Your task to perform on an android device: check data usage Image 0: 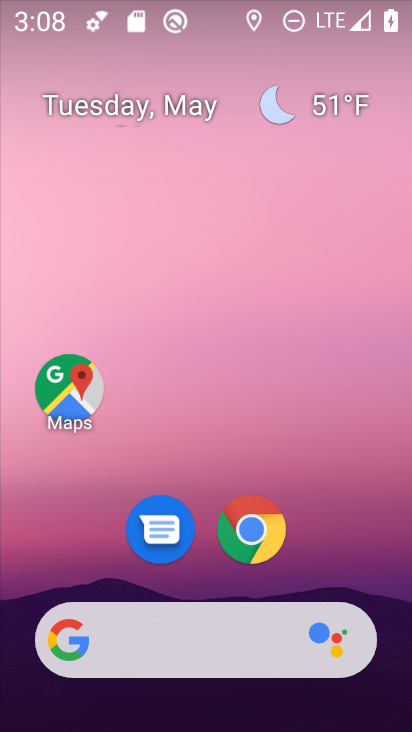
Step 0: drag from (211, 568) to (243, 36)
Your task to perform on an android device: check data usage Image 1: 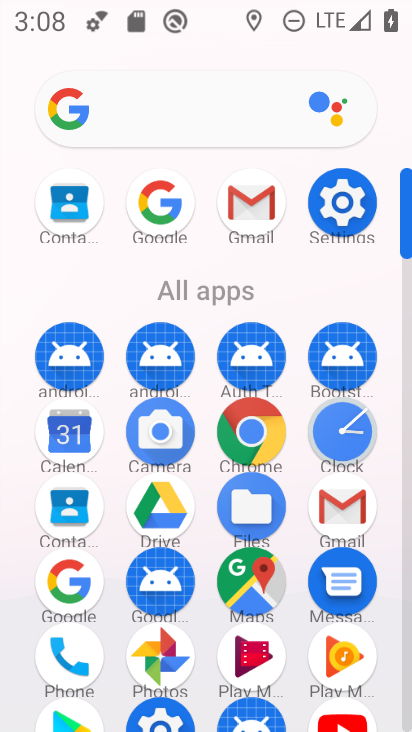
Step 1: click (353, 185)
Your task to perform on an android device: check data usage Image 2: 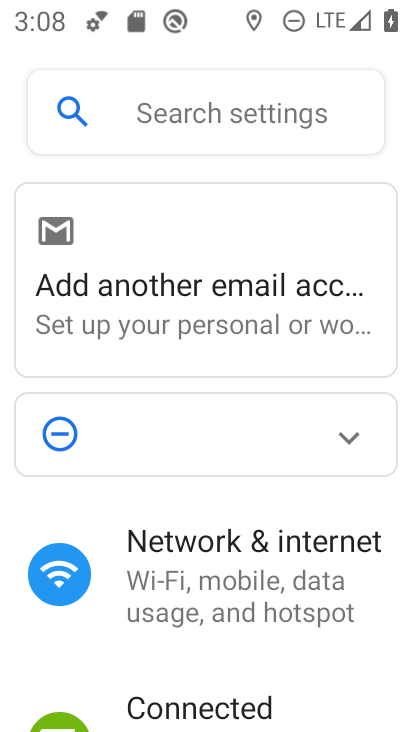
Step 2: drag from (215, 599) to (252, 198)
Your task to perform on an android device: check data usage Image 3: 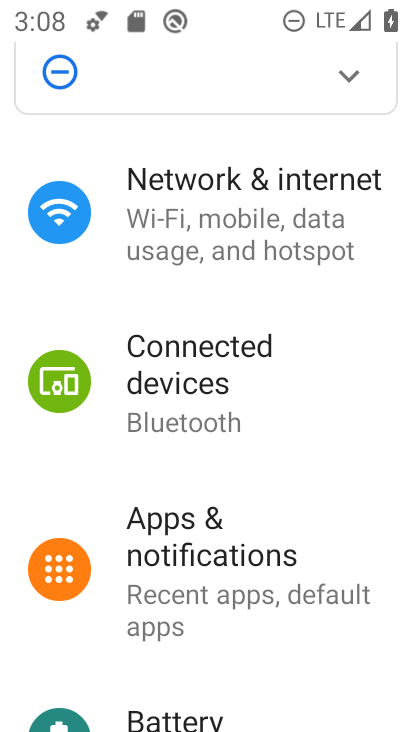
Step 3: click (186, 246)
Your task to perform on an android device: check data usage Image 4: 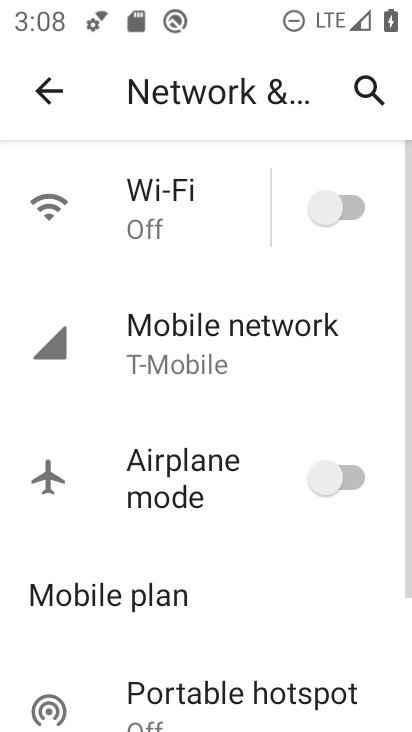
Step 4: drag from (187, 594) to (233, 139)
Your task to perform on an android device: check data usage Image 5: 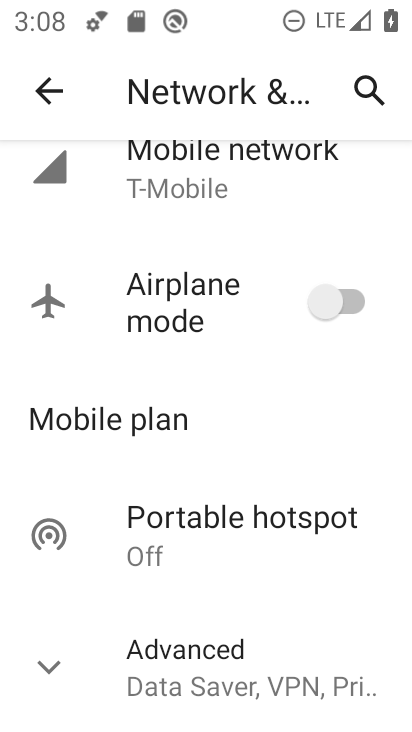
Step 5: click (169, 682)
Your task to perform on an android device: check data usage Image 6: 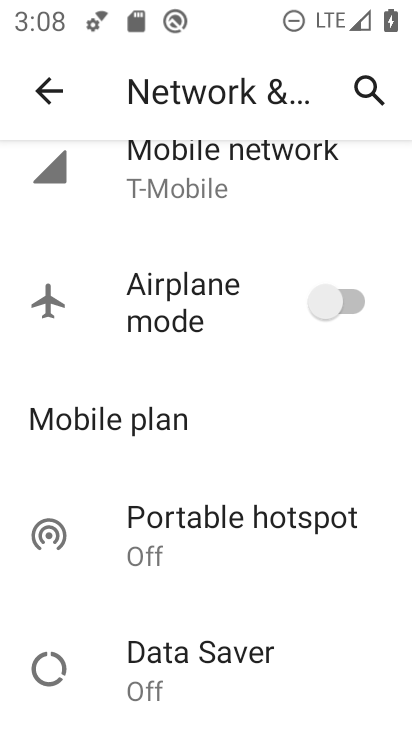
Step 6: drag from (181, 668) to (228, 724)
Your task to perform on an android device: check data usage Image 7: 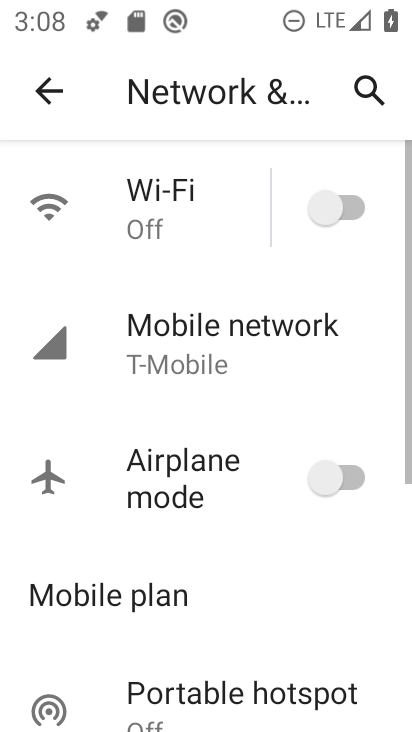
Step 7: click (181, 328)
Your task to perform on an android device: check data usage Image 8: 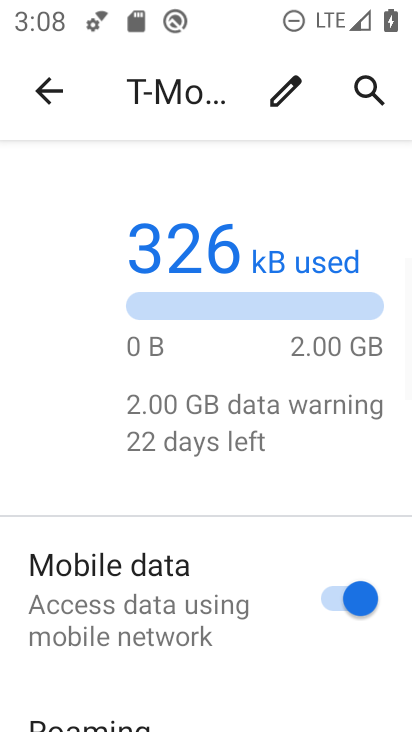
Step 8: drag from (150, 674) to (227, 162)
Your task to perform on an android device: check data usage Image 9: 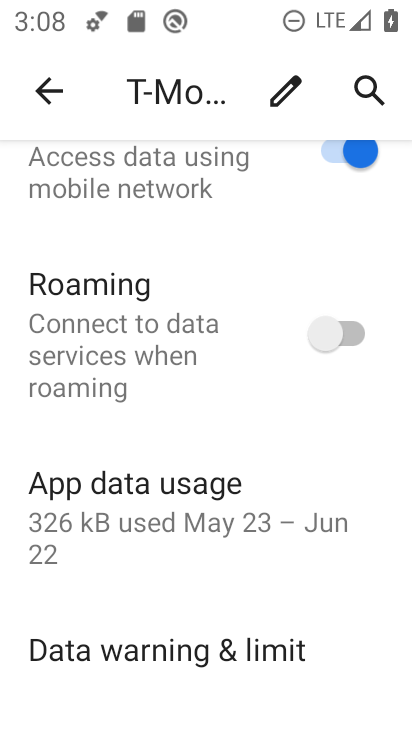
Step 9: click (120, 499)
Your task to perform on an android device: check data usage Image 10: 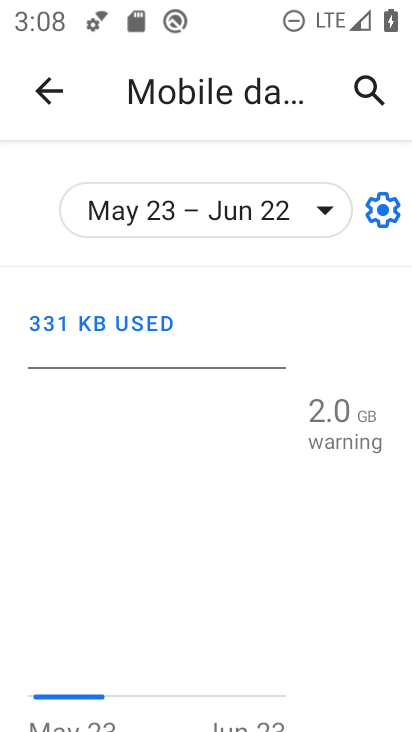
Step 10: task complete